Your task to perform on an android device: empty trash in google photos Image 0: 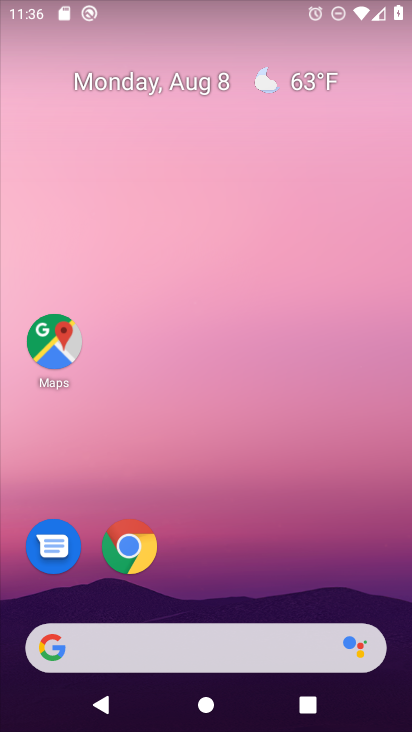
Step 0: press home button
Your task to perform on an android device: empty trash in google photos Image 1: 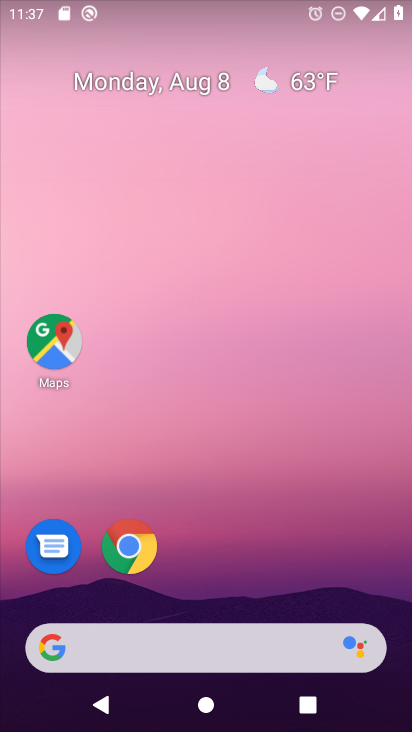
Step 1: drag from (222, 603) to (221, 0)
Your task to perform on an android device: empty trash in google photos Image 2: 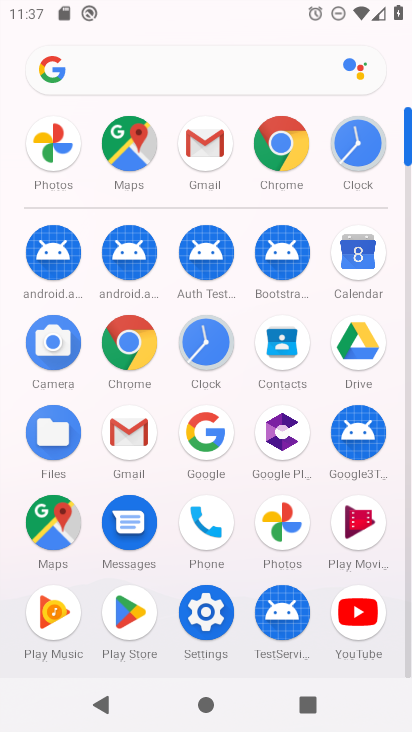
Step 2: click (279, 512)
Your task to perform on an android device: empty trash in google photos Image 3: 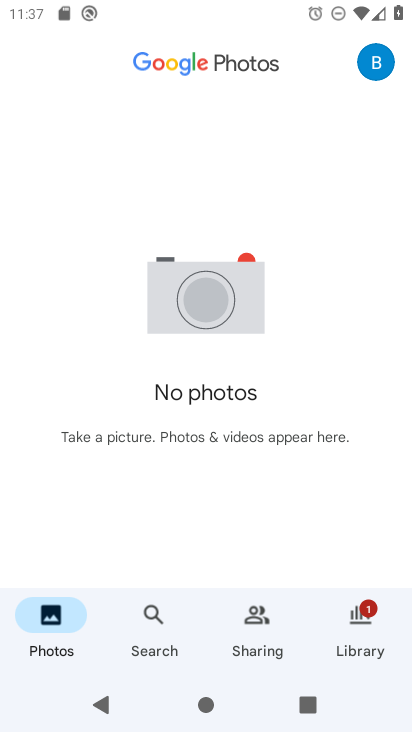
Step 3: click (352, 609)
Your task to perform on an android device: empty trash in google photos Image 4: 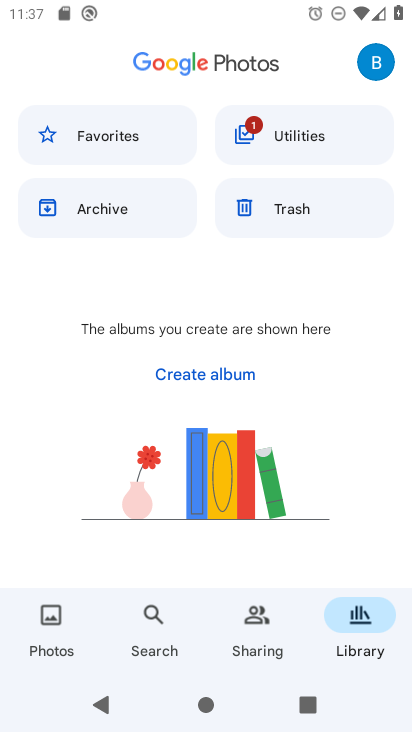
Step 4: click (264, 207)
Your task to perform on an android device: empty trash in google photos Image 5: 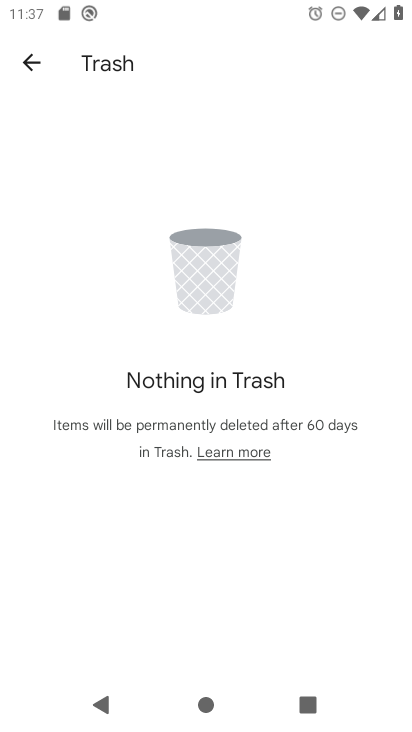
Step 5: task complete